Your task to perform on an android device: toggle notifications settings in the gmail app Image 0: 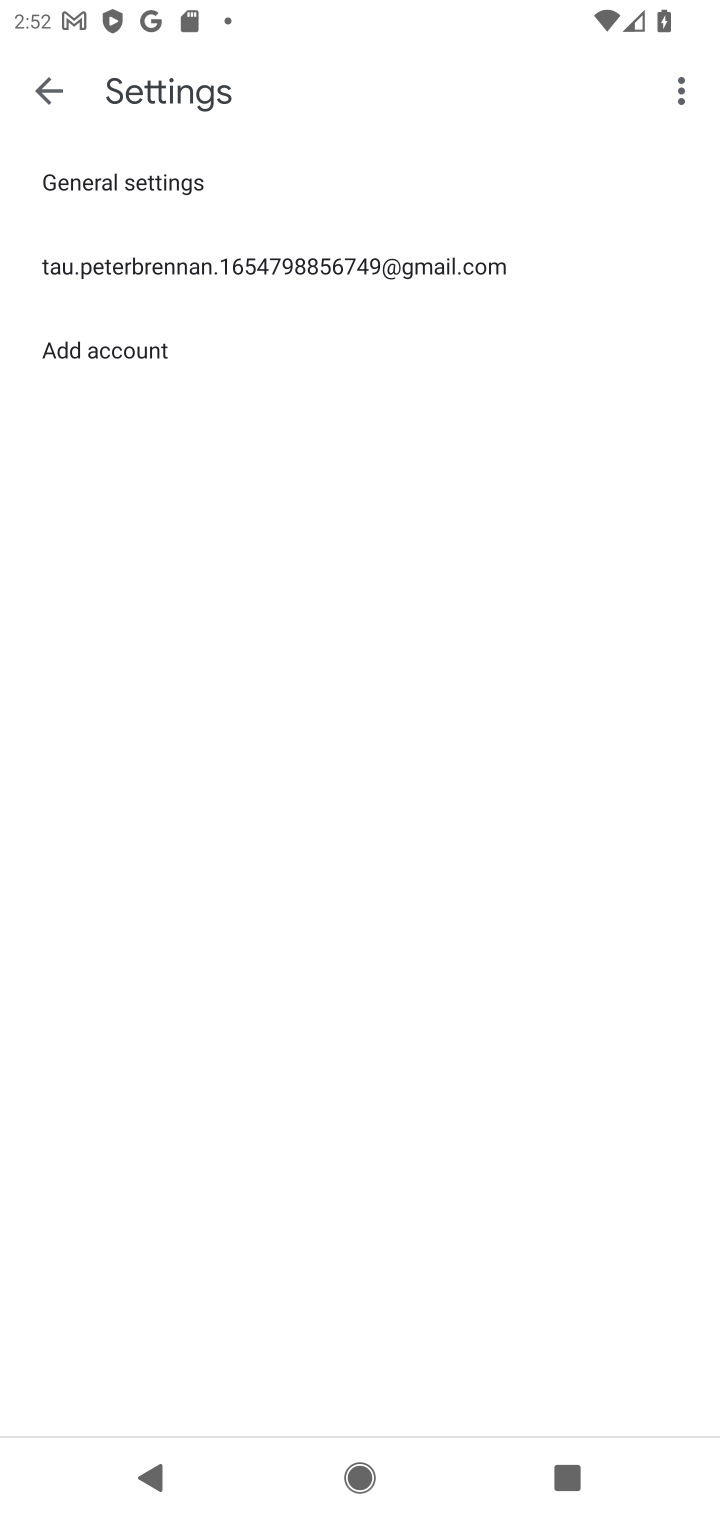
Step 0: press home button
Your task to perform on an android device: toggle notifications settings in the gmail app Image 1: 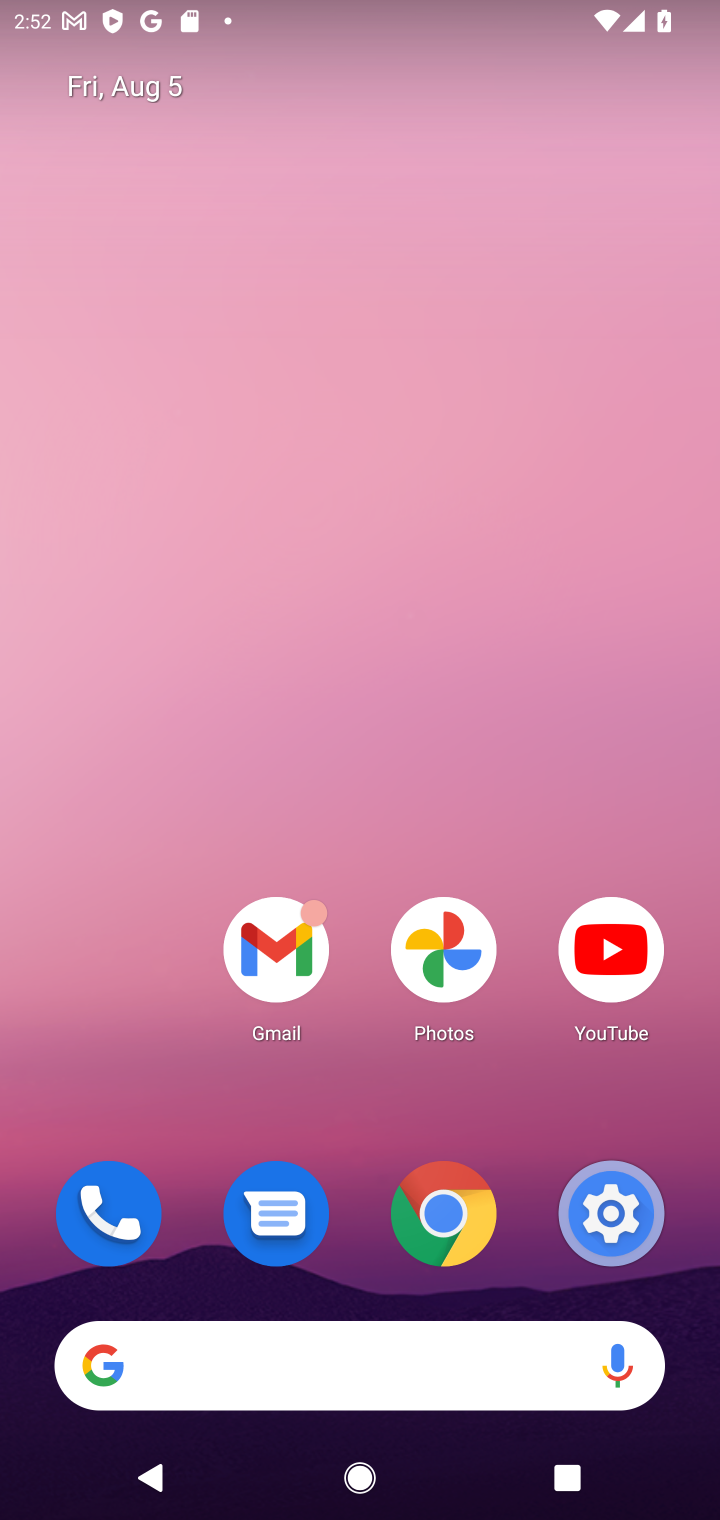
Step 1: click (319, 968)
Your task to perform on an android device: toggle notifications settings in the gmail app Image 2: 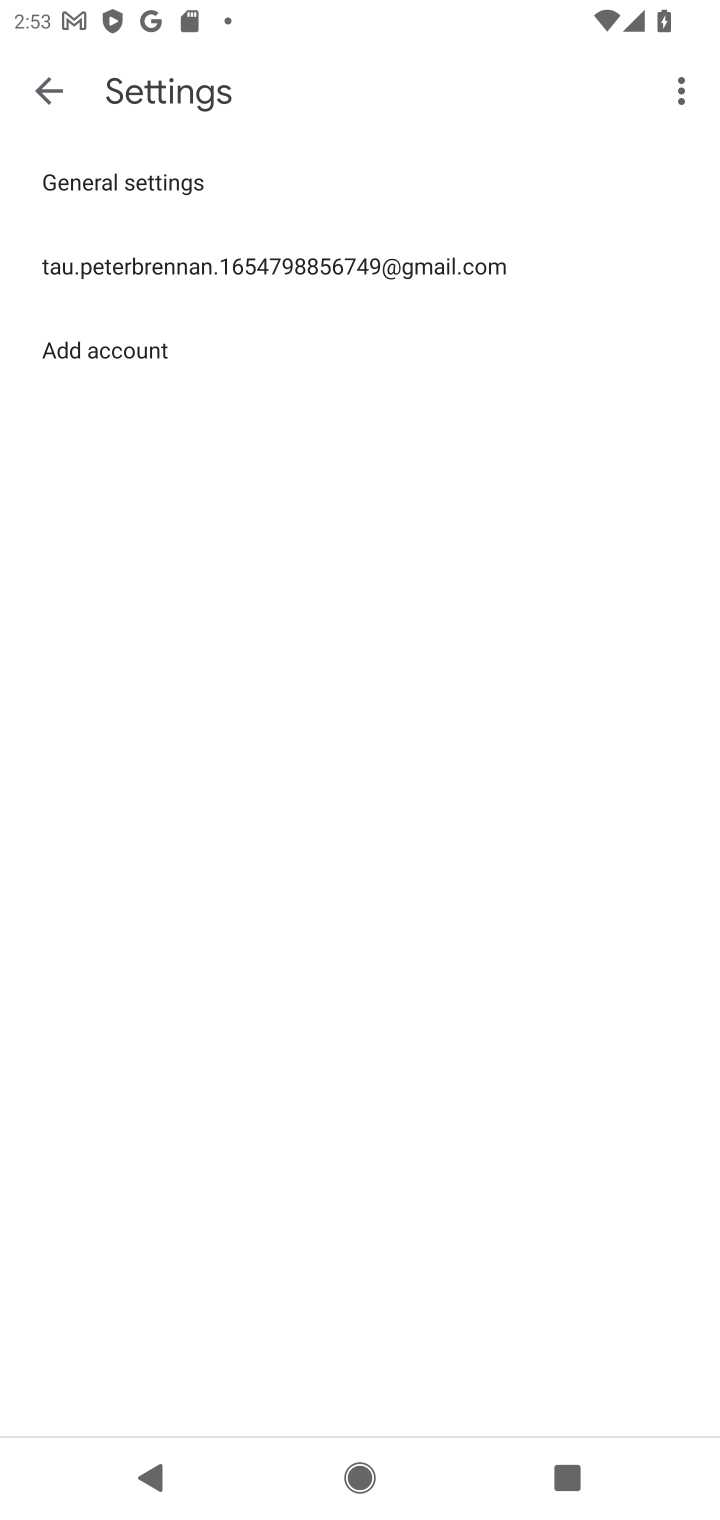
Step 2: click (34, 64)
Your task to perform on an android device: toggle notifications settings in the gmail app Image 3: 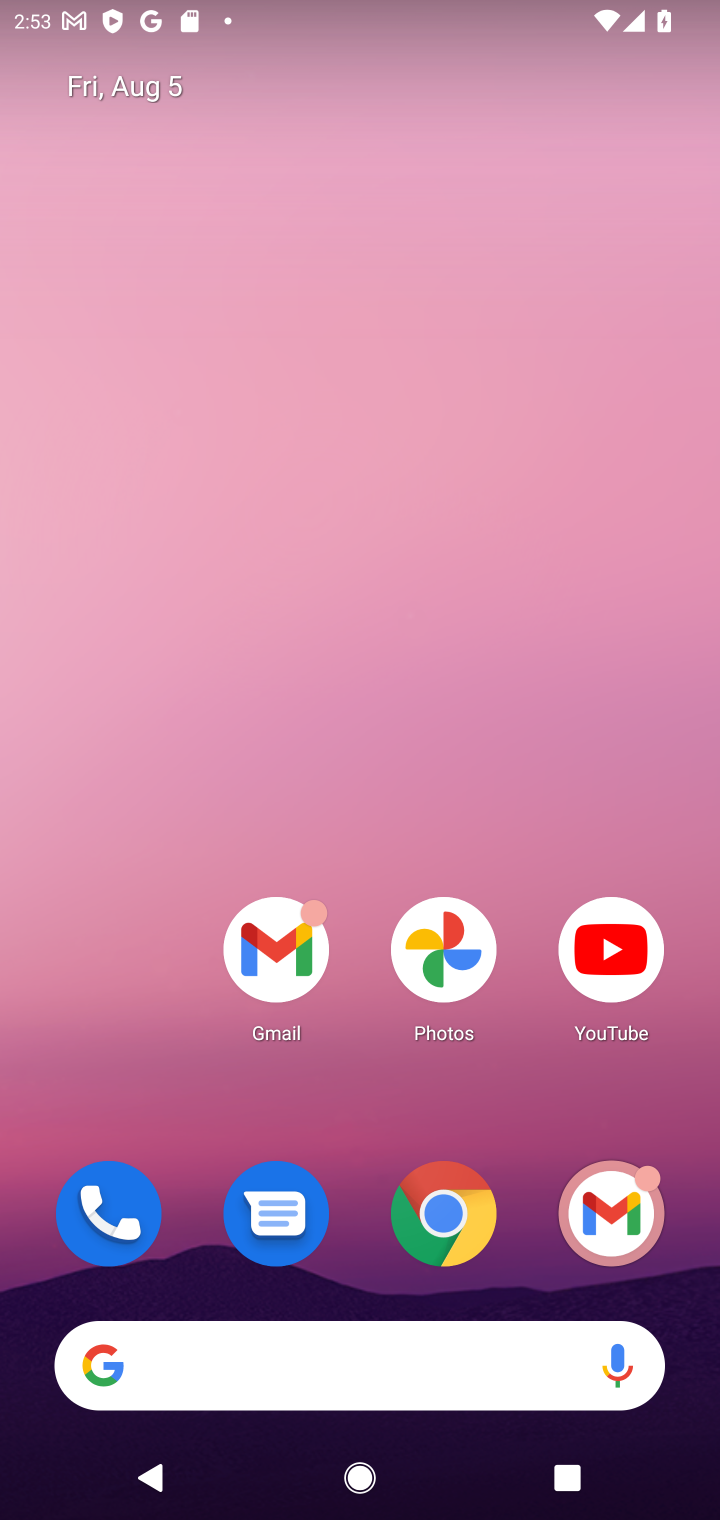
Step 3: click (285, 932)
Your task to perform on an android device: toggle notifications settings in the gmail app Image 4: 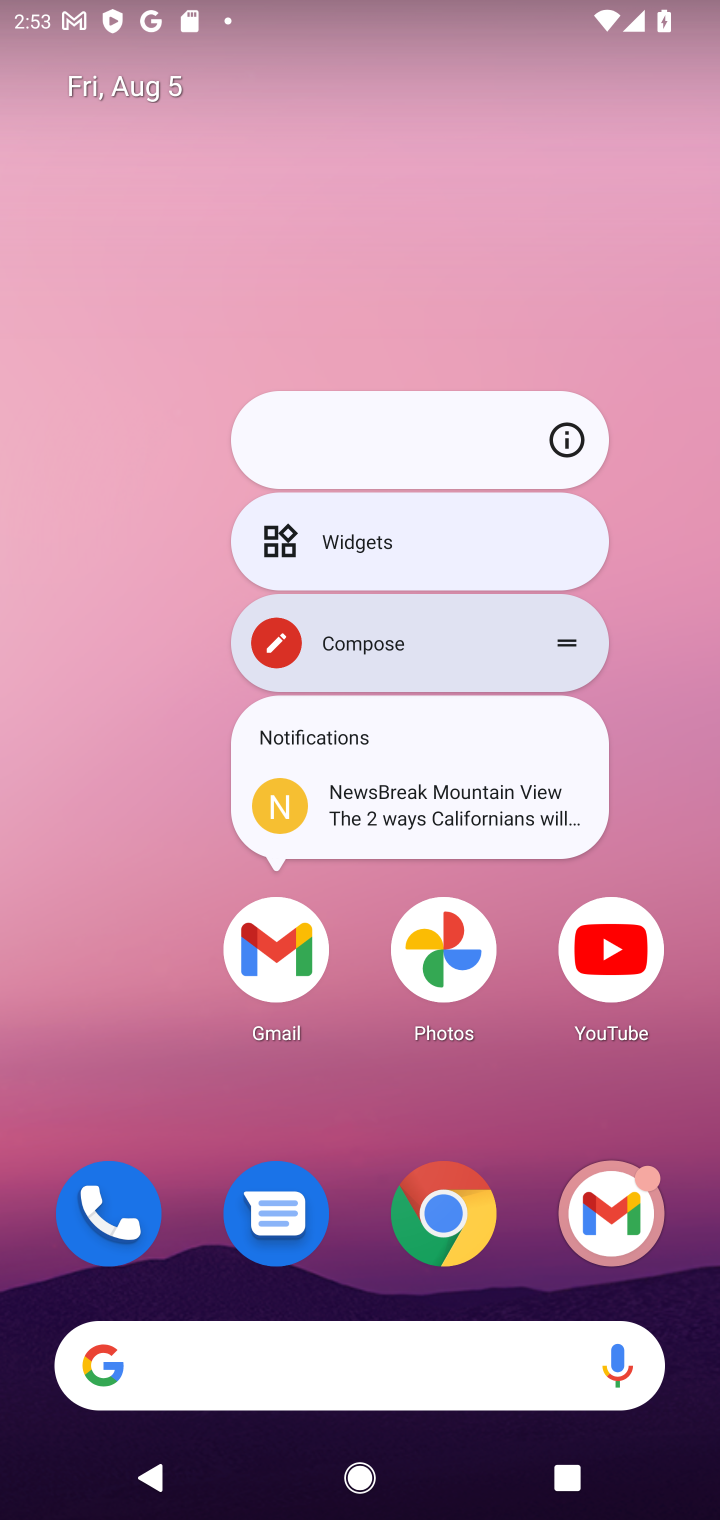
Step 4: click (269, 979)
Your task to perform on an android device: toggle notifications settings in the gmail app Image 5: 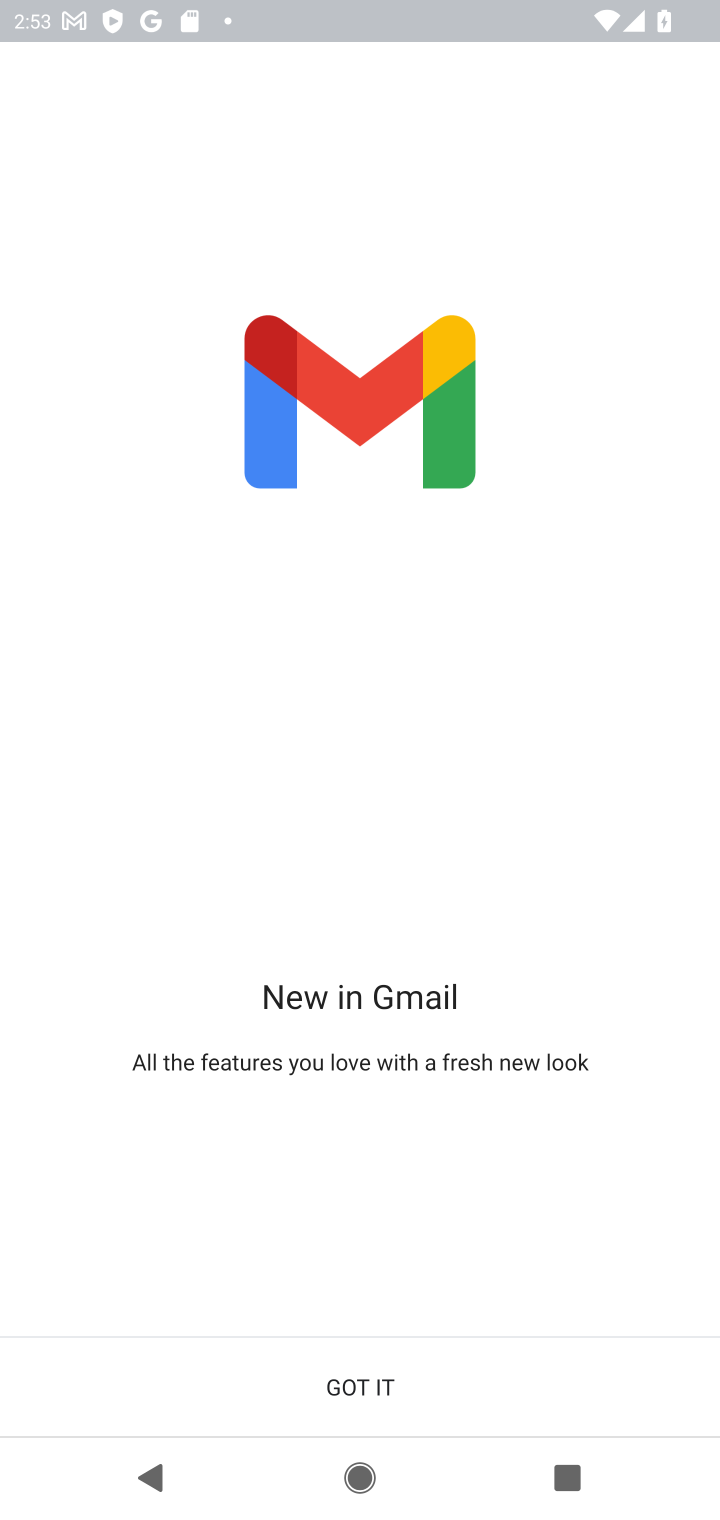
Step 5: click (415, 1358)
Your task to perform on an android device: toggle notifications settings in the gmail app Image 6: 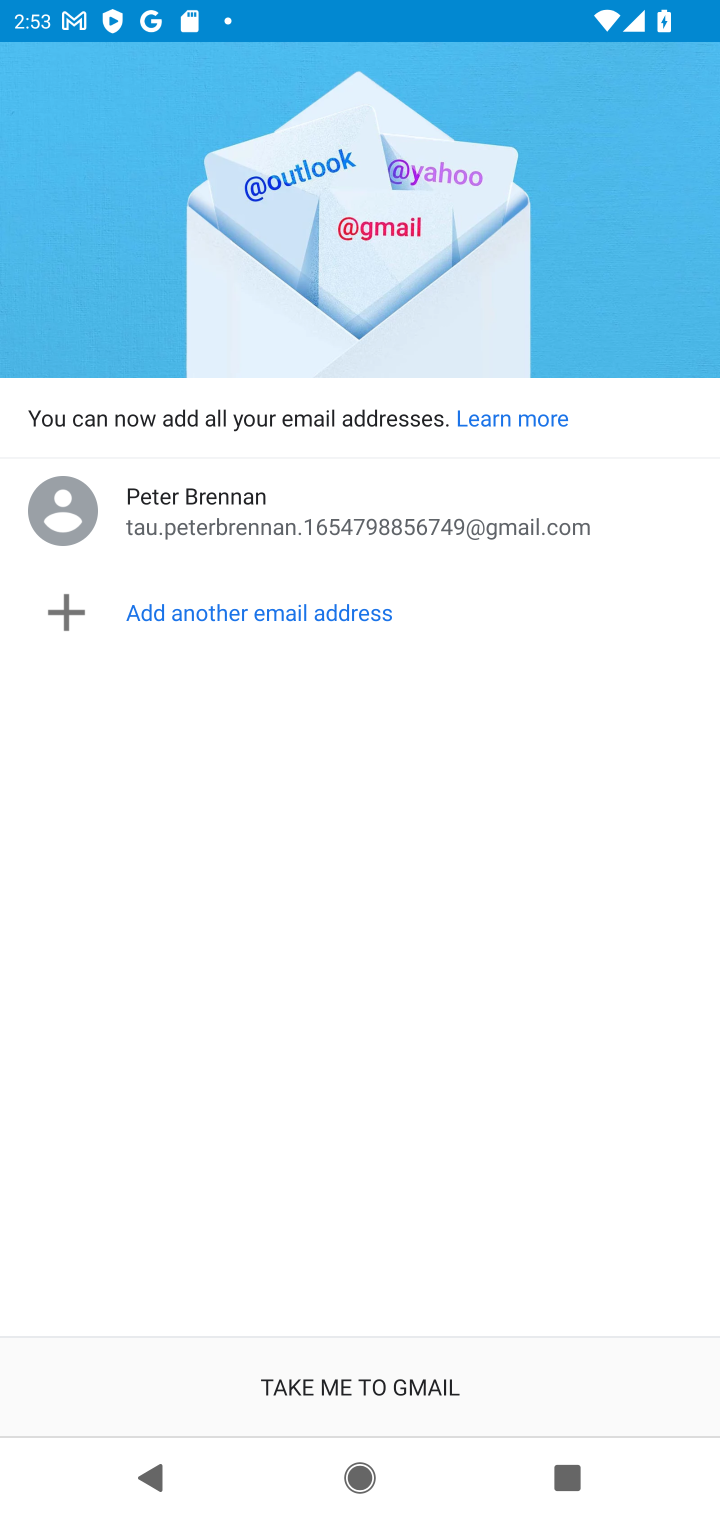
Step 6: click (415, 1358)
Your task to perform on an android device: toggle notifications settings in the gmail app Image 7: 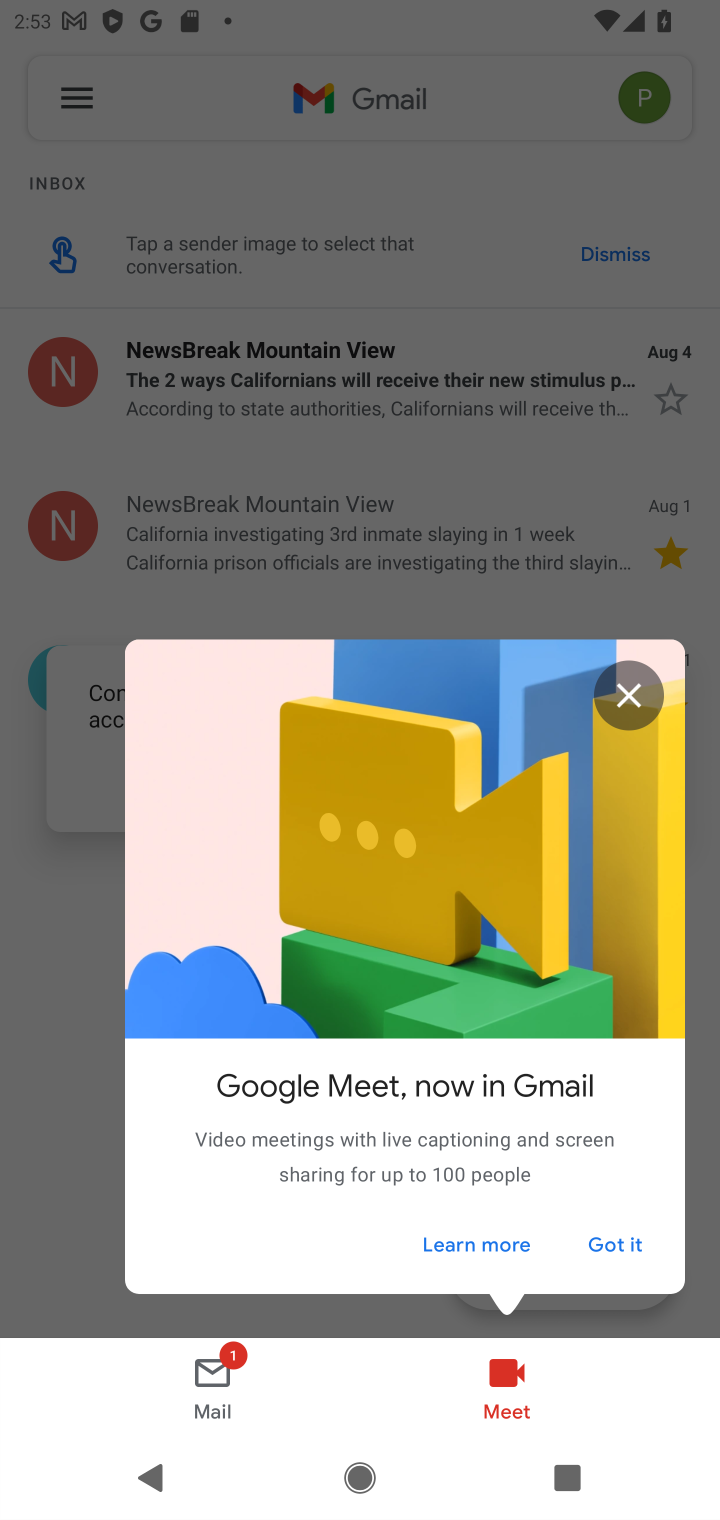
Step 7: click (621, 702)
Your task to perform on an android device: toggle notifications settings in the gmail app Image 8: 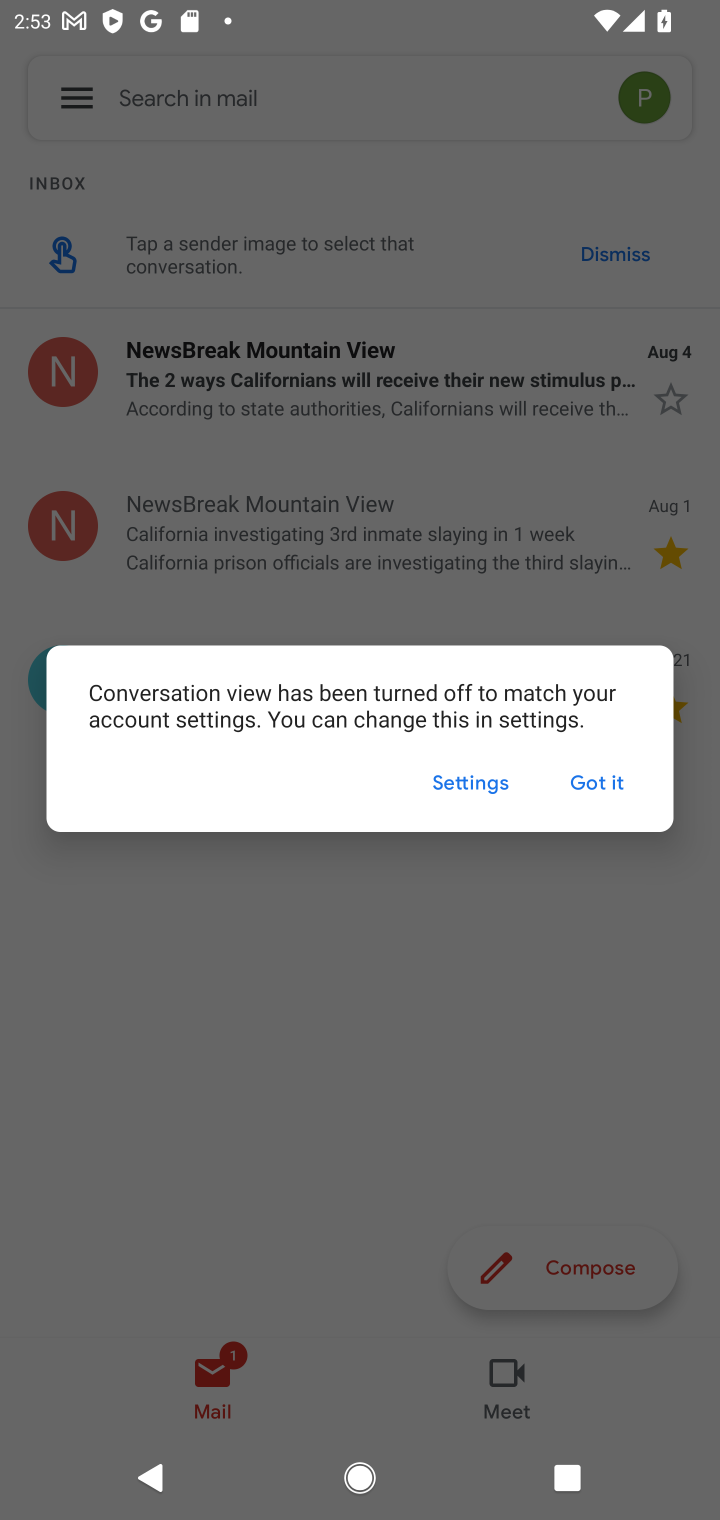
Step 8: click (599, 793)
Your task to perform on an android device: toggle notifications settings in the gmail app Image 9: 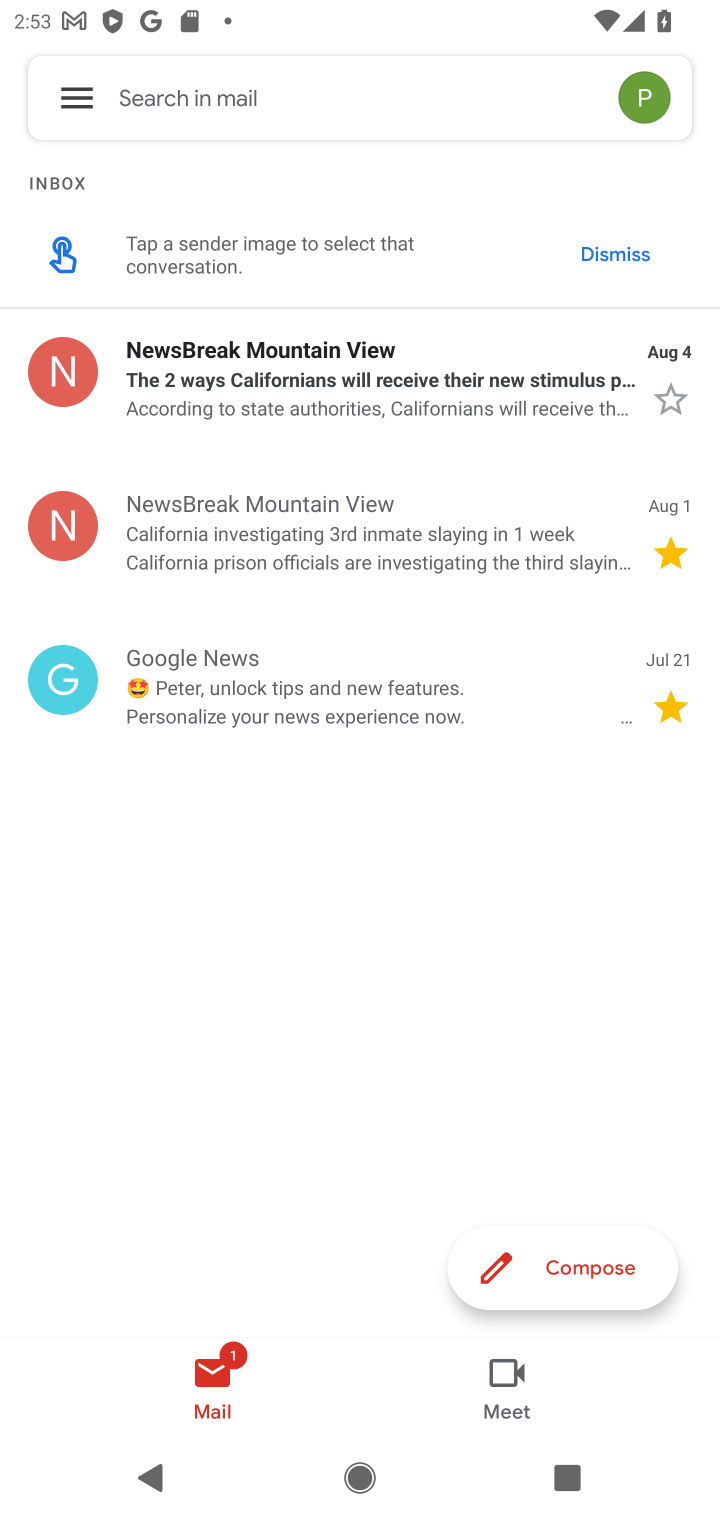
Step 9: click (72, 94)
Your task to perform on an android device: toggle notifications settings in the gmail app Image 10: 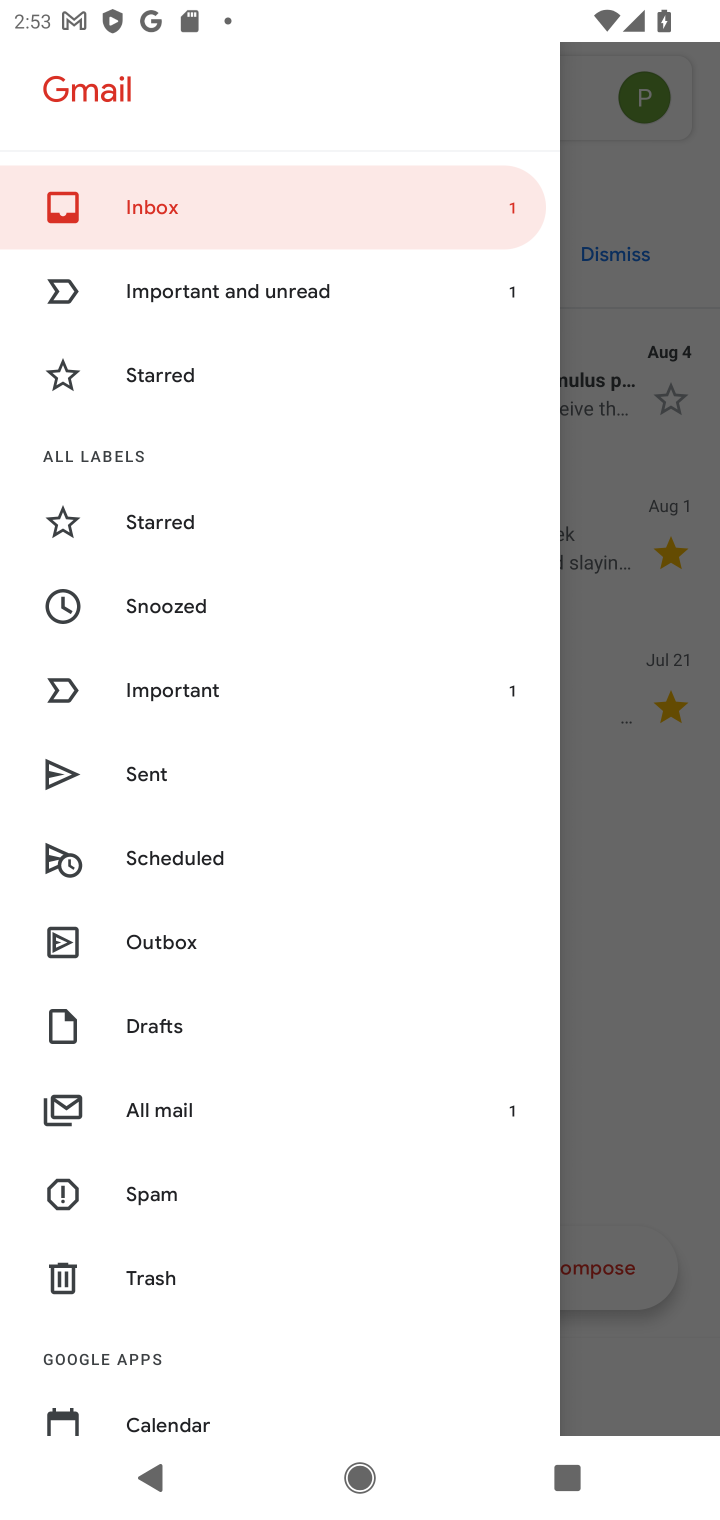
Step 10: drag from (318, 1336) to (166, 241)
Your task to perform on an android device: toggle notifications settings in the gmail app Image 11: 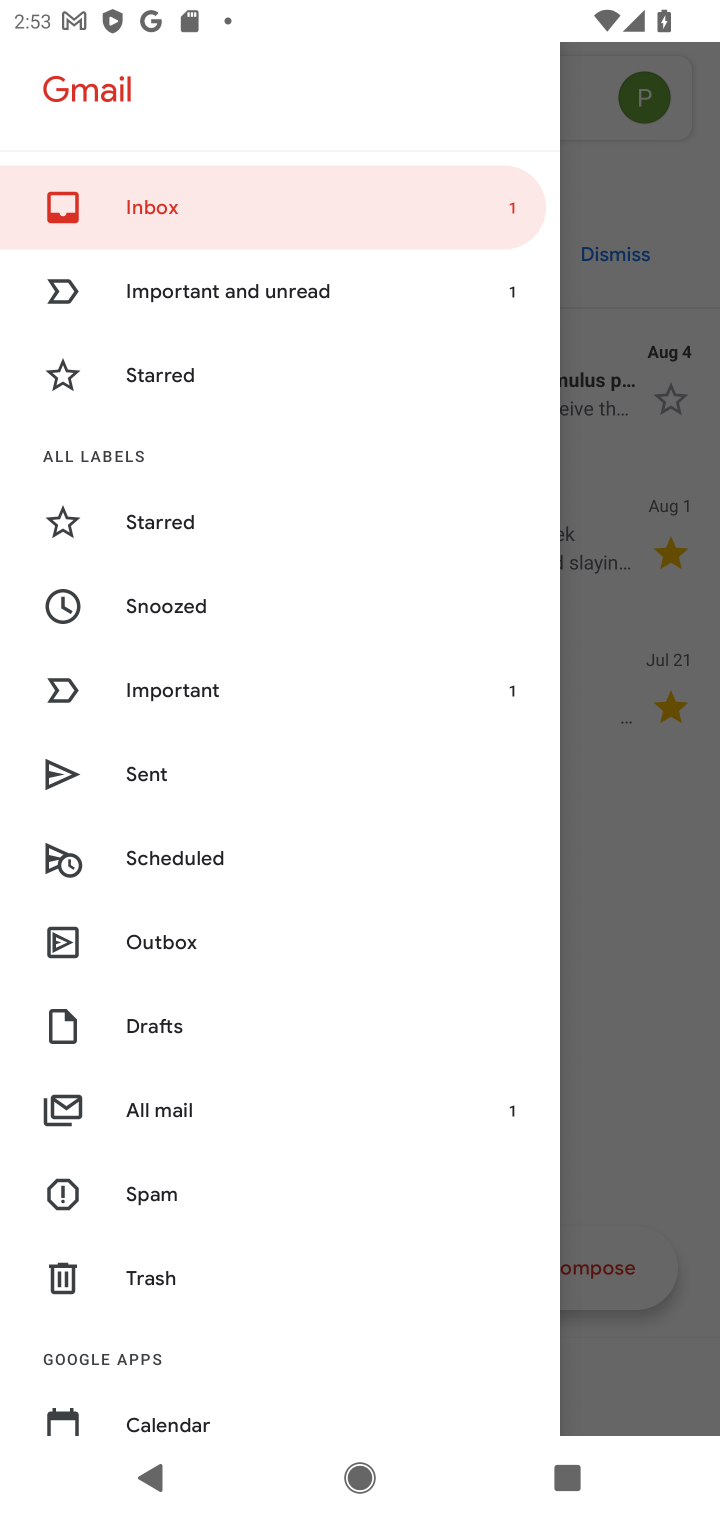
Step 11: drag from (207, 1384) to (375, 340)
Your task to perform on an android device: toggle notifications settings in the gmail app Image 12: 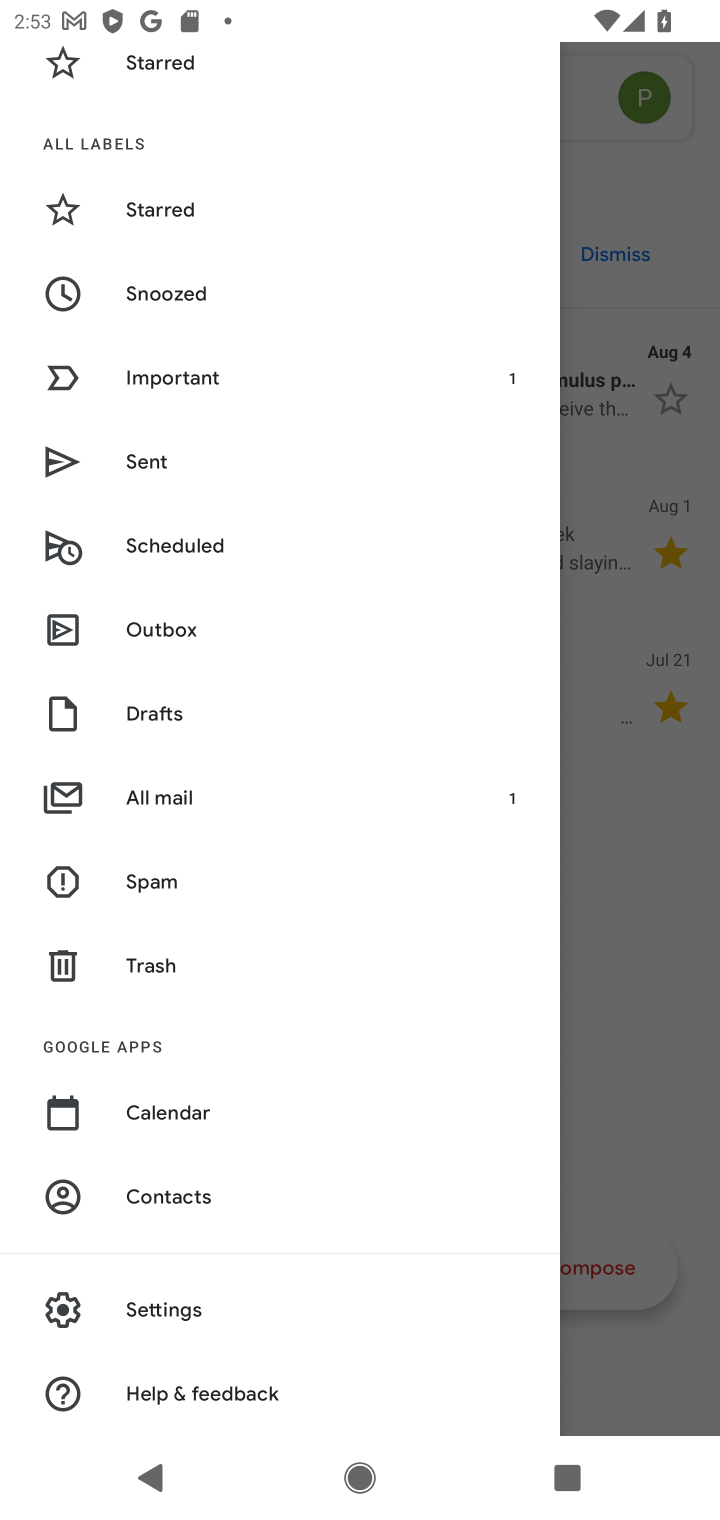
Step 12: click (318, 1317)
Your task to perform on an android device: toggle notifications settings in the gmail app Image 13: 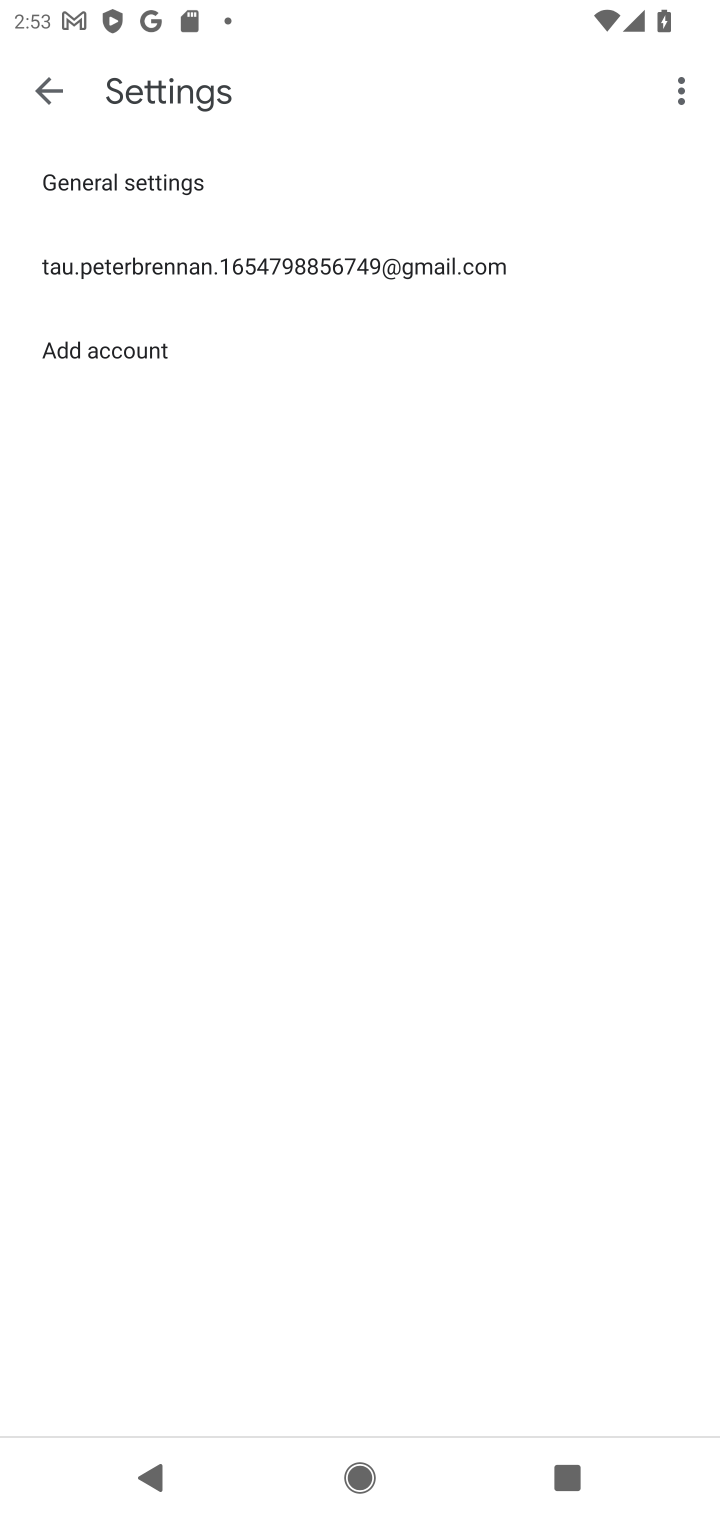
Step 13: click (268, 281)
Your task to perform on an android device: toggle notifications settings in the gmail app Image 14: 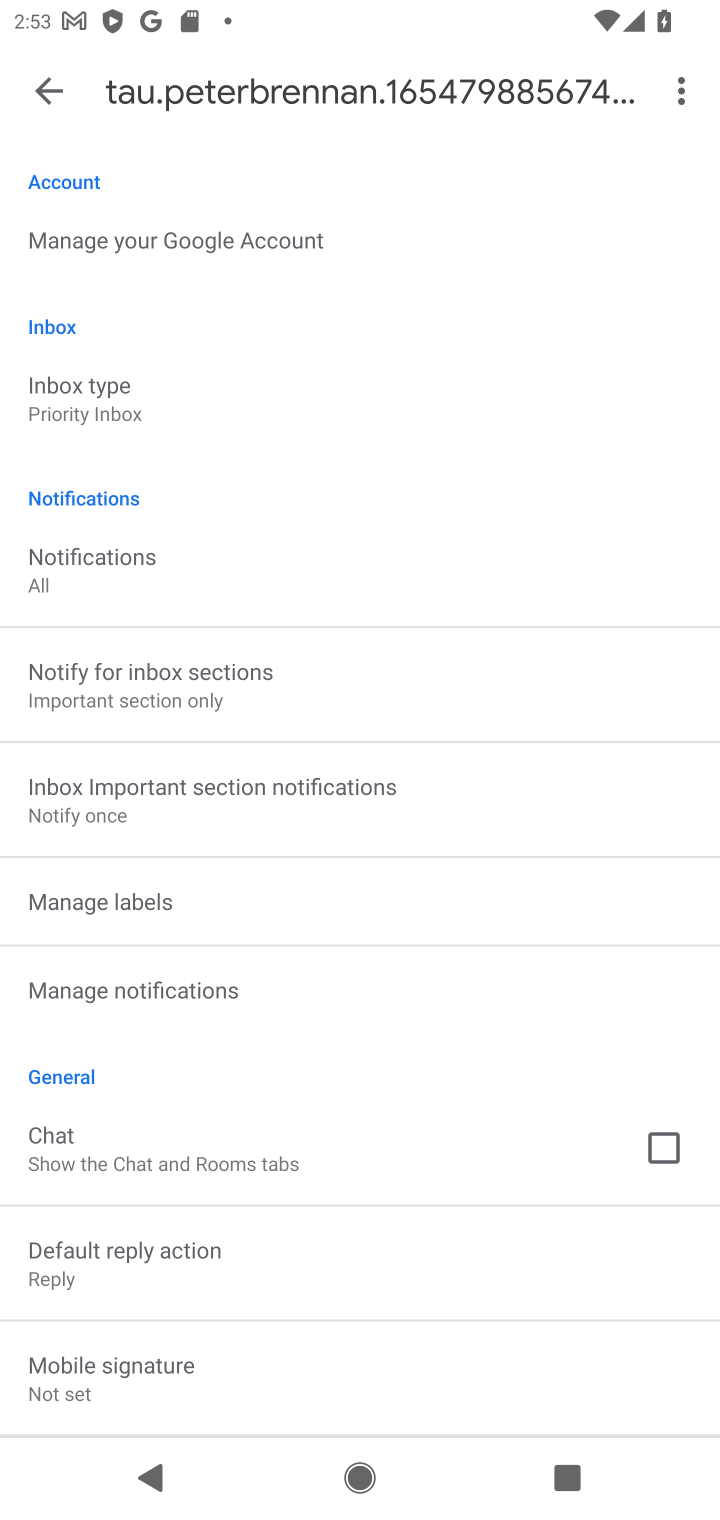
Step 14: task complete